Your task to perform on an android device: set default search engine in the chrome app Image 0: 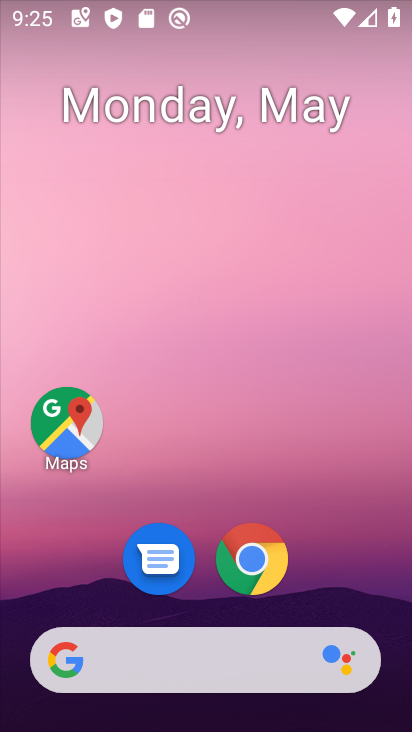
Step 0: click (257, 555)
Your task to perform on an android device: set default search engine in the chrome app Image 1: 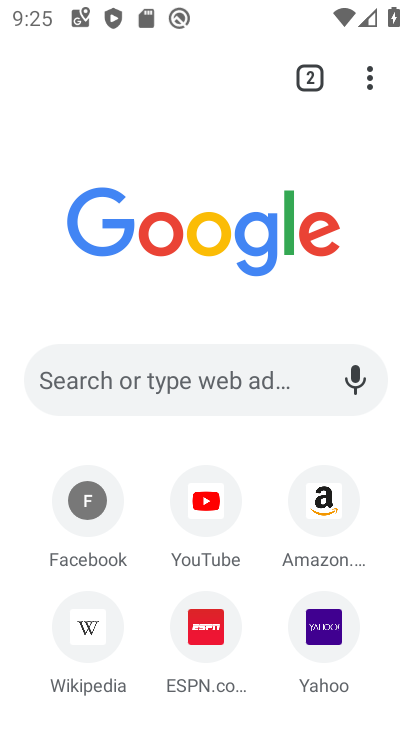
Step 1: click (366, 84)
Your task to perform on an android device: set default search engine in the chrome app Image 2: 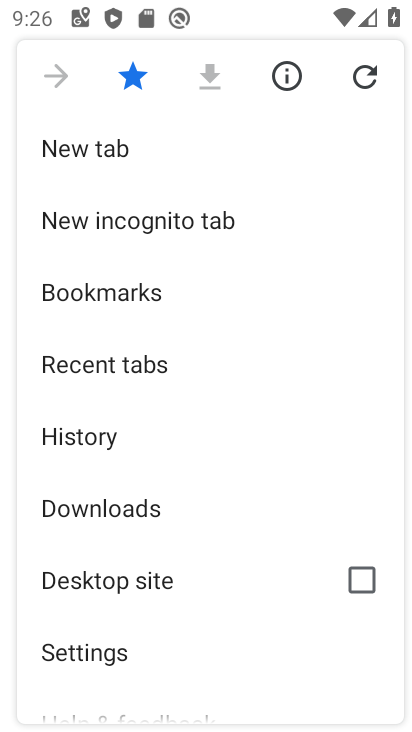
Step 2: drag from (202, 532) to (181, 196)
Your task to perform on an android device: set default search engine in the chrome app Image 3: 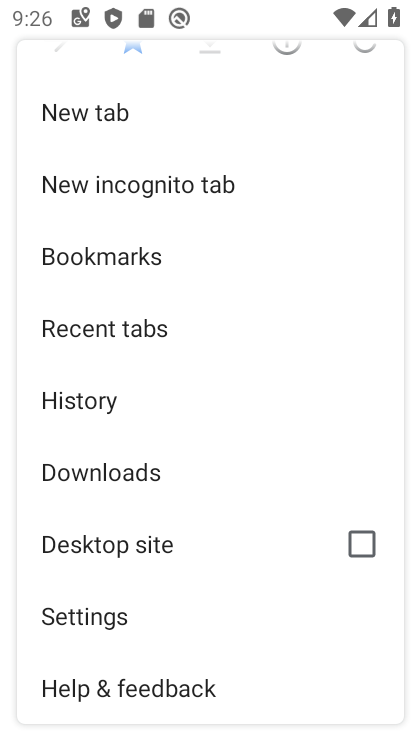
Step 3: click (115, 612)
Your task to perform on an android device: set default search engine in the chrome app Image 4: 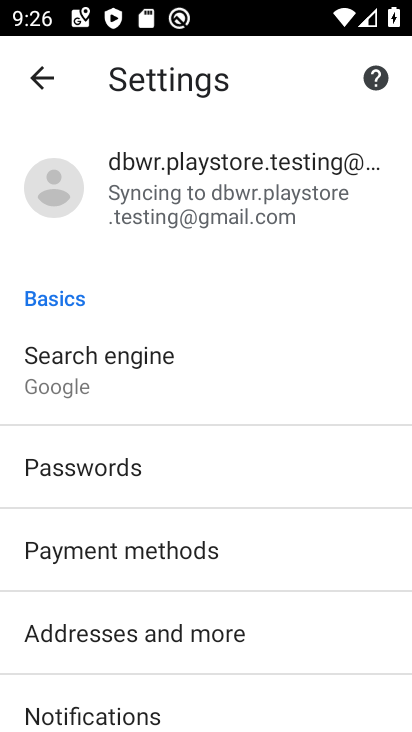
Step 4: click (99, 360)
Your task to perform on an android device: set default search engine in the chrome app Image 5: 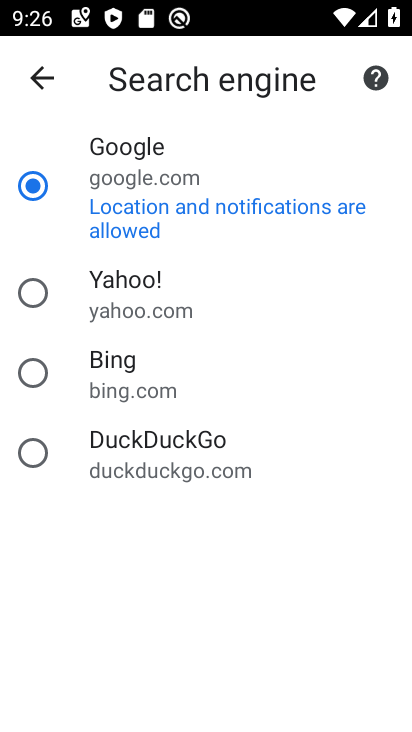
Step 5: task complete